Your task to perform on an android device: turn on priority inbox in the gmail app Image 0: 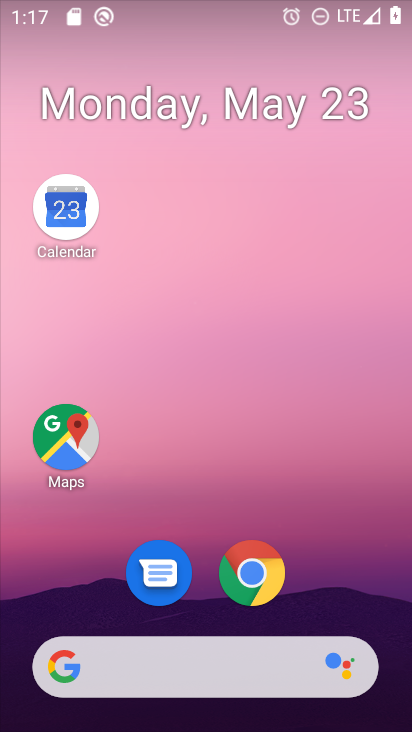
Step 0: drag from (316, 611) to (302, 1)
Your task to perform on an android device: turn on priority inbox in the gmail app Image 1: 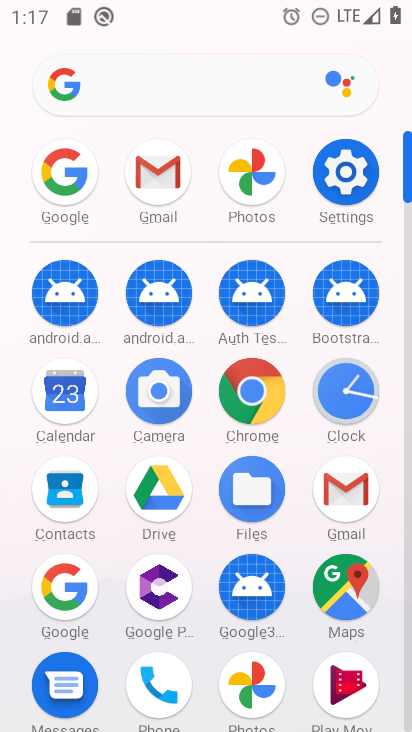
Step 1: click (161, 188)
Your task to perform on an android device: turn on priority inbox in the gmail app Image 2: 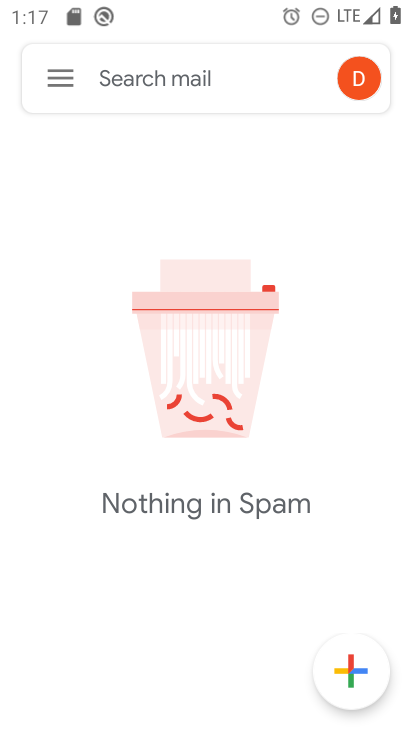
Step 2: click (49, 73)
Your task to perform on an android device: turn on priority inbox in the gmail app Image 3: 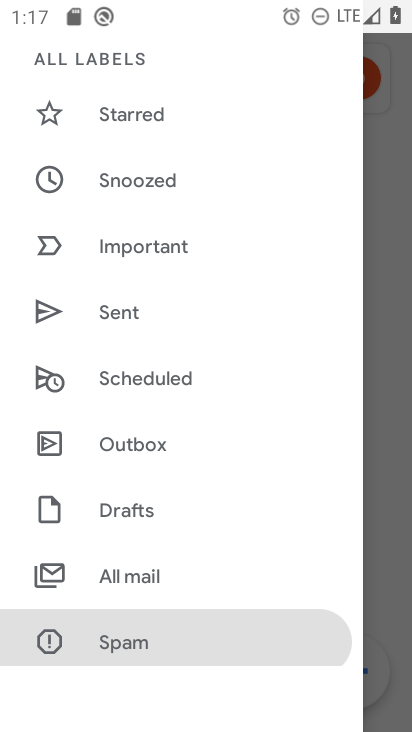
Step 3: drag from (79, 623) to (174, 217)
Your task to perform on an android device: turn on priority inbox in the gmail app Image 4: 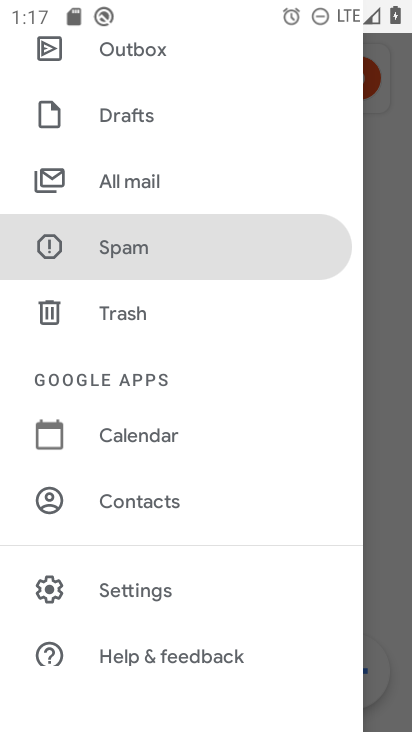
Step 4: click (118, 592)
Your task to perform on an android device: turn on priority inbox in the gmail app Image 5: 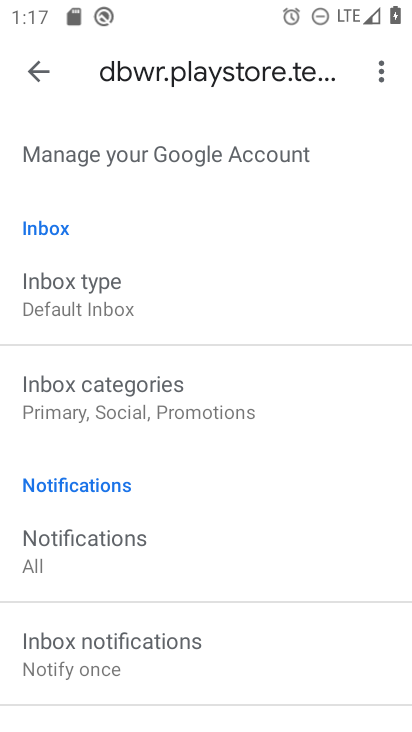
Step 5: click (64, 320)
Your task to perform on an android device: turn on priority inbox in the gmail app Image 6: 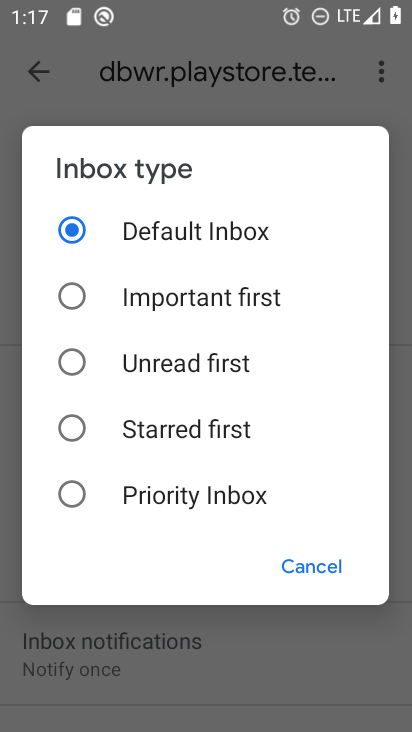
Step 6: click (138, 497)
Your task to perform on an android device: turn on priority inbox in the gmail app Image 7: 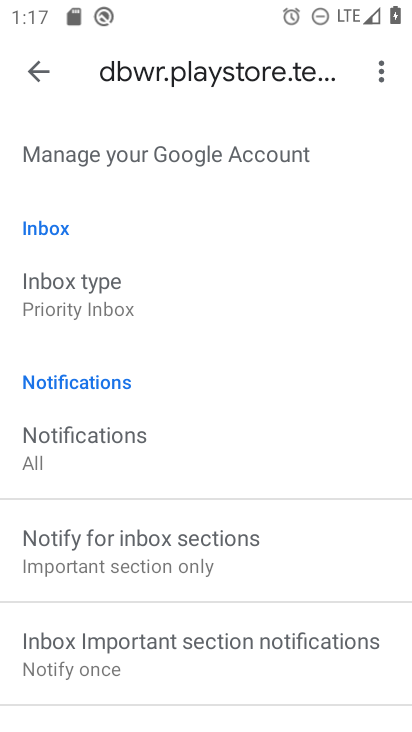
Step 7: task complete